Your task to perform on an android device: open app "Messenger Lite" Image 0: 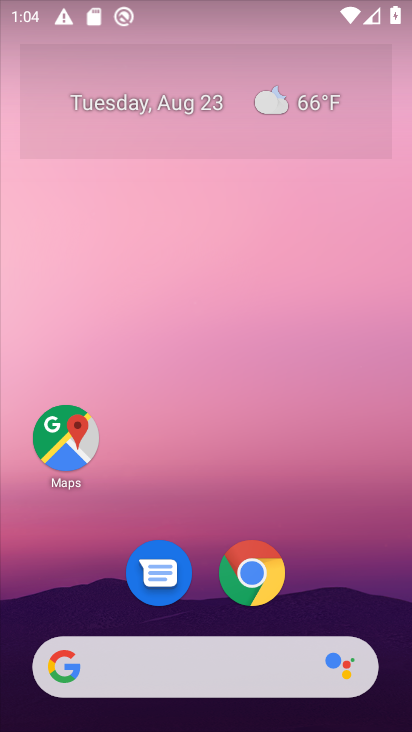
Step 0: drag from (199, 499) to (214, 103)
Your task to perform on an android device: open app "Messenger Lite" Image 1: 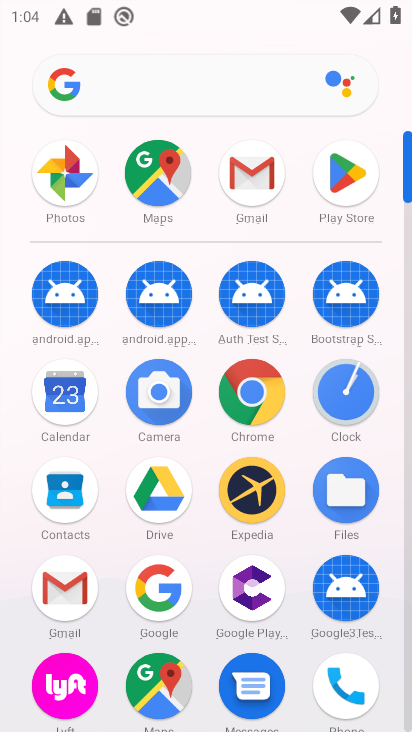
Step 1: click (321, 176)
Your task to perform on an android device: open app "Messenger Lite" Image 2: 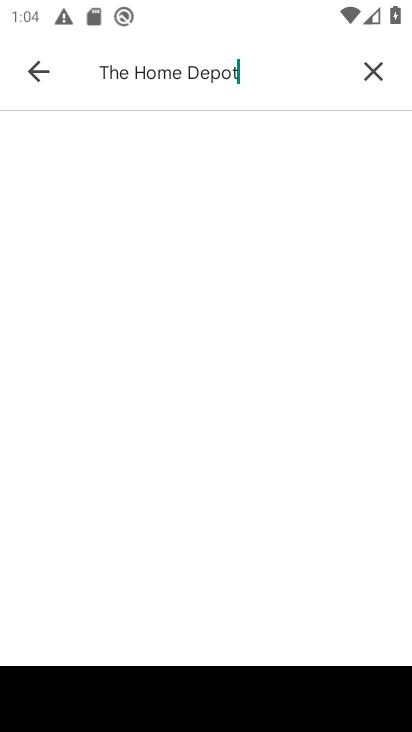
Step 2: click (355, 69)
Your task to perform on an android device: open app "Messenger Lite" Image 3: 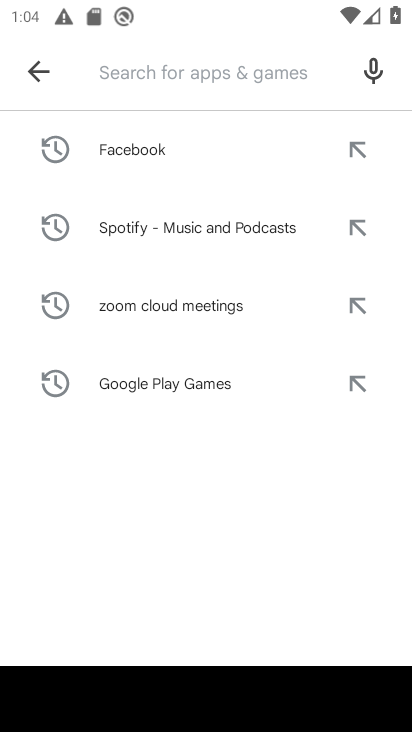
Step 3: type "Messenger Lite"
Your task to perform on an android device: open app "Messenger Lite" Image 4: 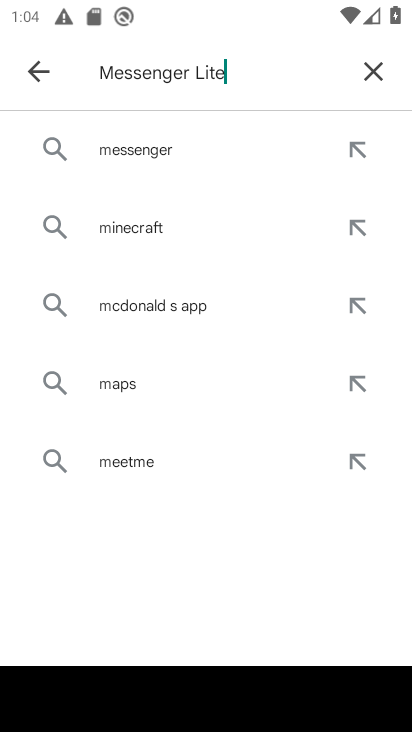
Step 4: type ""
Your task to perform on an android device: open app "Messenger Lite" Image 5: 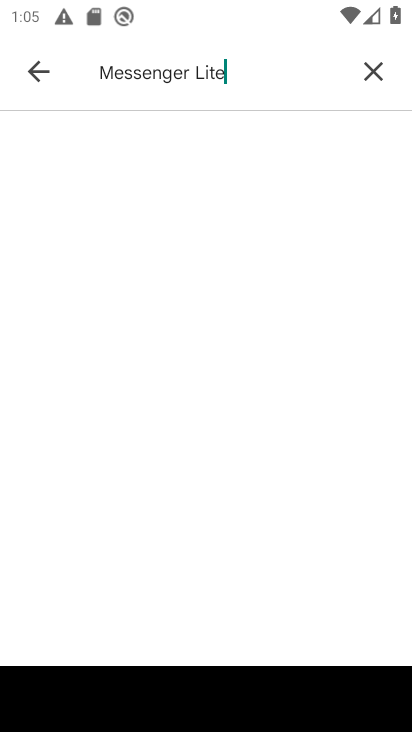
Step 5: task complete